Your task to perform on an android device: Toggle the flashlight Image 0: 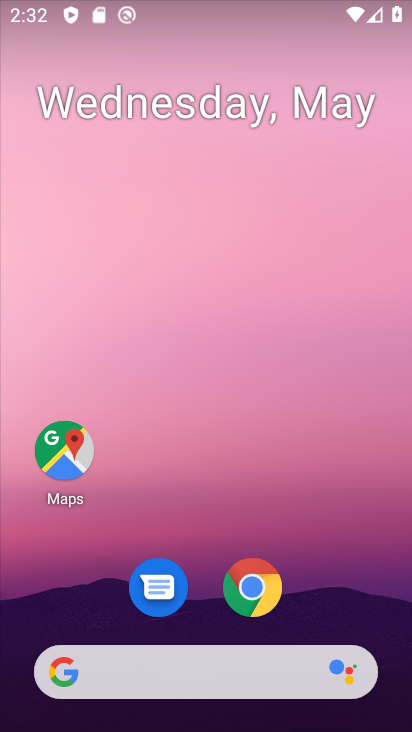
Step 0: drag from (198, 606) to (209, 297)
Your task to perform on an android device: Toggle the flashlight Image 1: 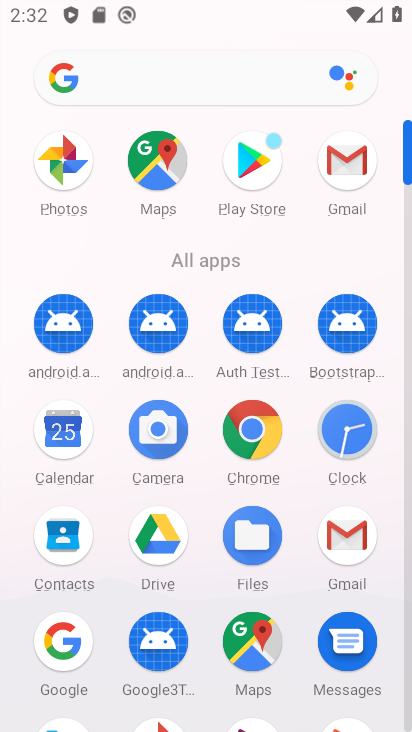
Step 1: drag from (209, 580) to (255, 54)
Your task to perform on an android device: Toggle the flashlight Image 2: 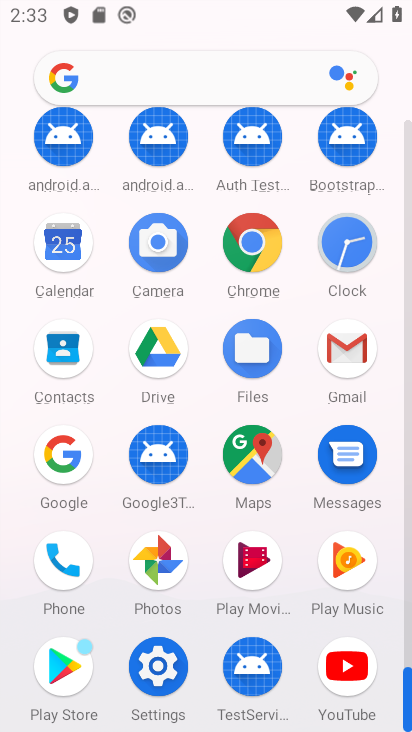
Step 2: click (155, 662)
Your task to perform on an android device: Toggle the flashlight Image 3: 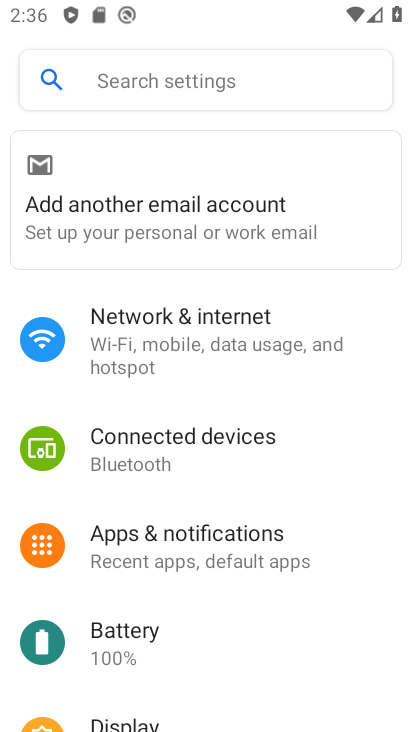
Step 3: task complete